Your task to perform on an android device: Go to settings Image 0: 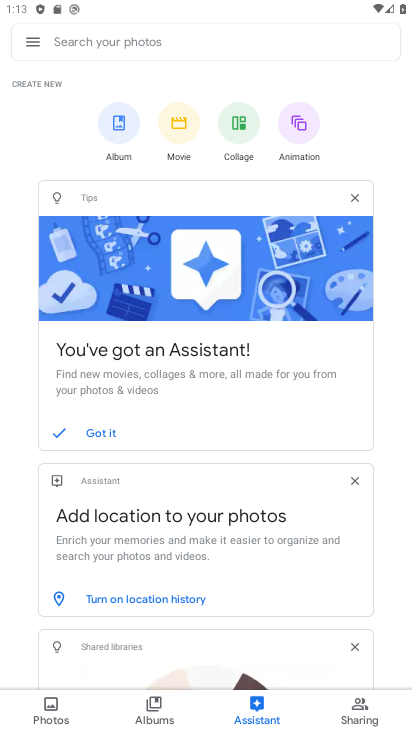
Step 0: press home button
Your task to perform on an android device: Go to settings Image 1: 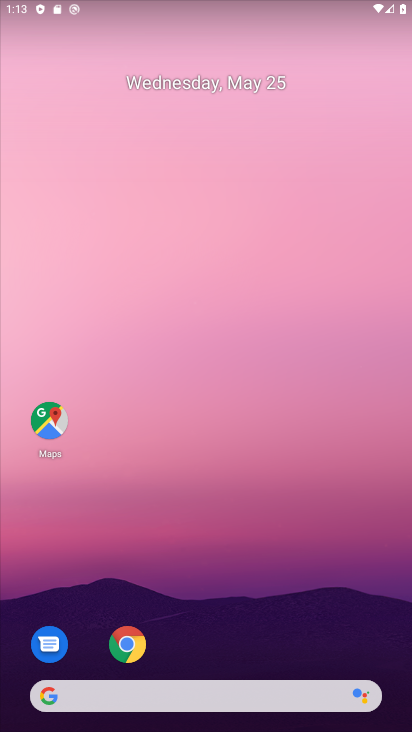
Step 1: drag from (165, 636) to (196, 85)
Your task to perform on an android device: Go to settings Image 2: 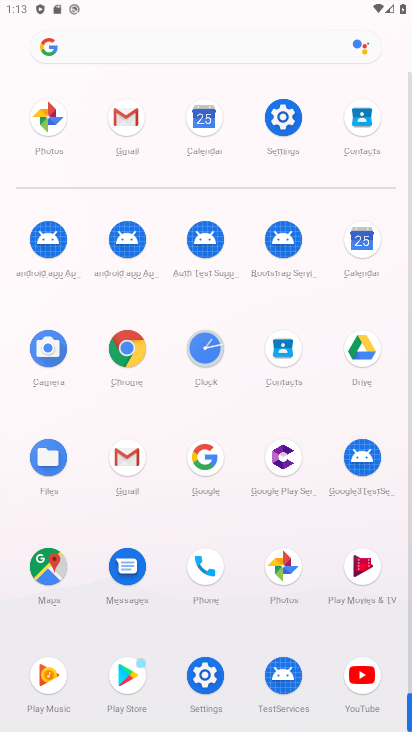
Step 2: click (279, 139)
Your task to perform on an android device: Go to settings Image 3: 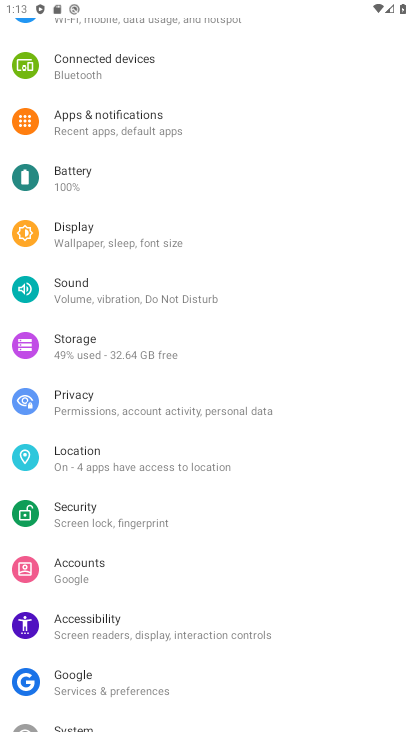
Step 3: task complete